Your task to perform on an android device: change the clock style Image 0: 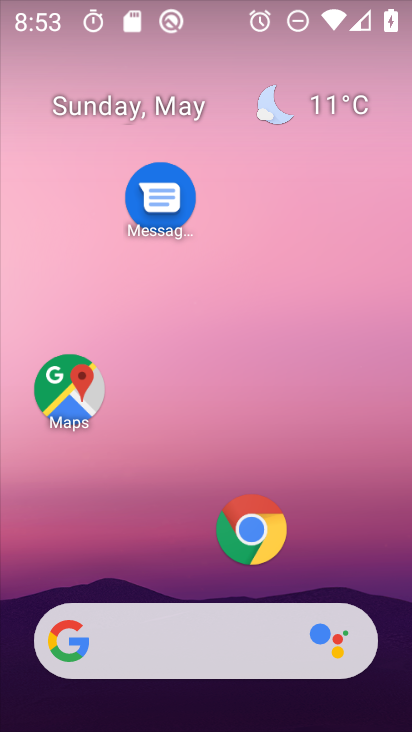
Step 0: drag from (211, 588) to (271, 6)
Your task to perform on an android device: change the clock style Image 1: 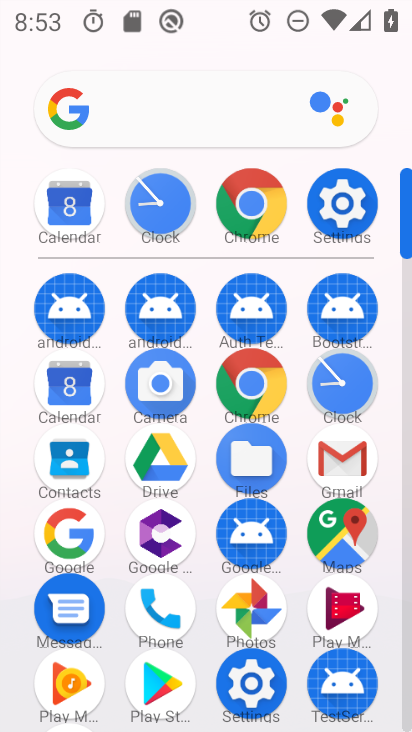
Step 1: click (337, 376)
Your task to perform on an android device: change the clock style Image 2: 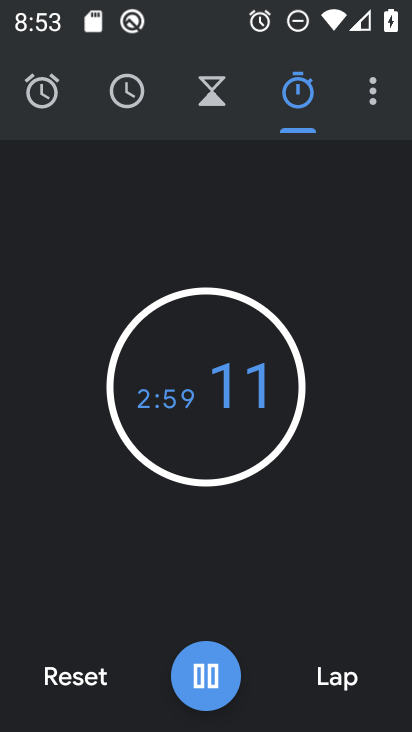
Step 2: click (66, 681)
Your task to perform on an android device: change the clock style Image 3: 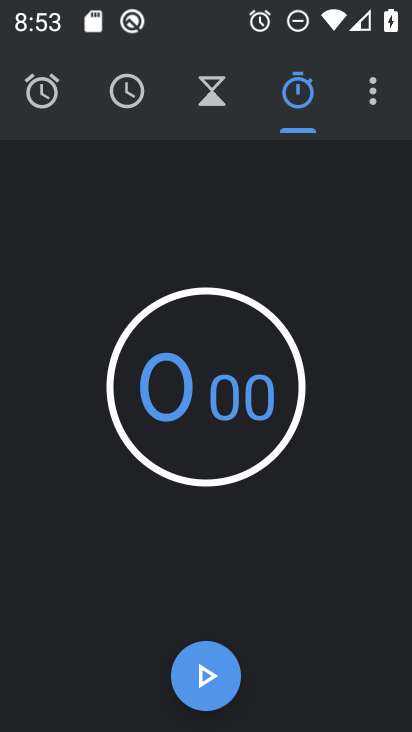
Step 3: click (371, 91)
Your task to perform on an android device: change the clock style Image 4: 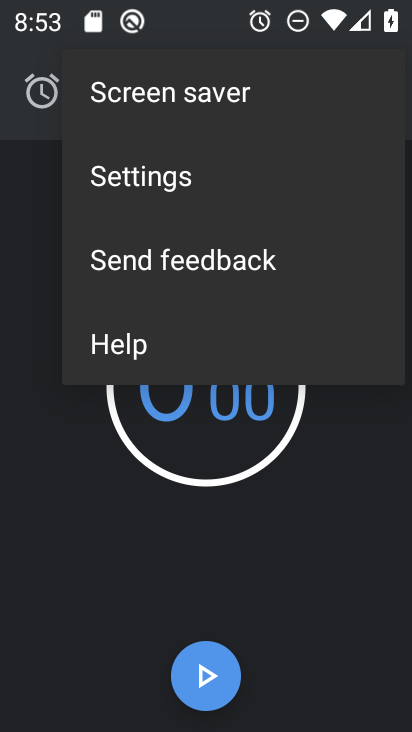
Step 4: click (198, 171)
Your task to perform on an android device: change the clock style Image 5: 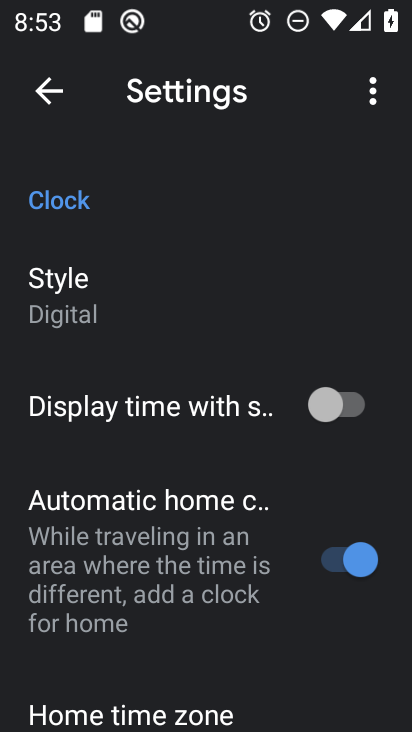
Step 5: click (122, 290)
Your task to perform on an android device: change the clock style Image 6: 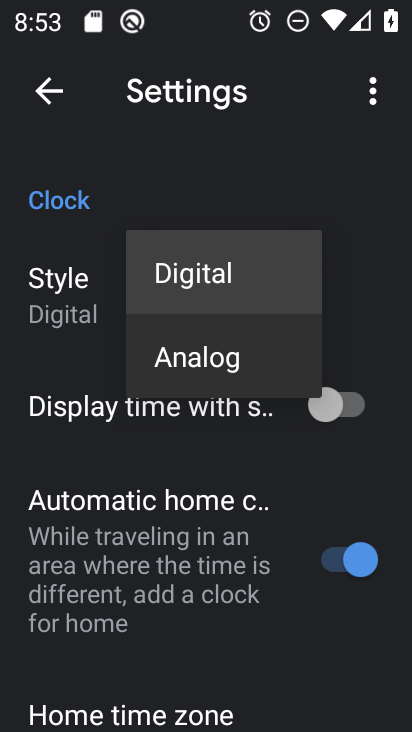
Step 6: click (203, 365)
Your task to perform on an android device: change the clock style Image 7: 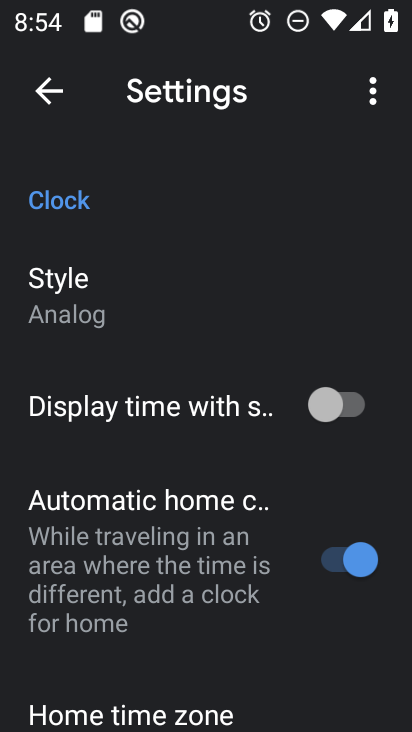
Step 7: task complete